Your task to perform on an android device: manage bookmarks in the chrome app Image 0: 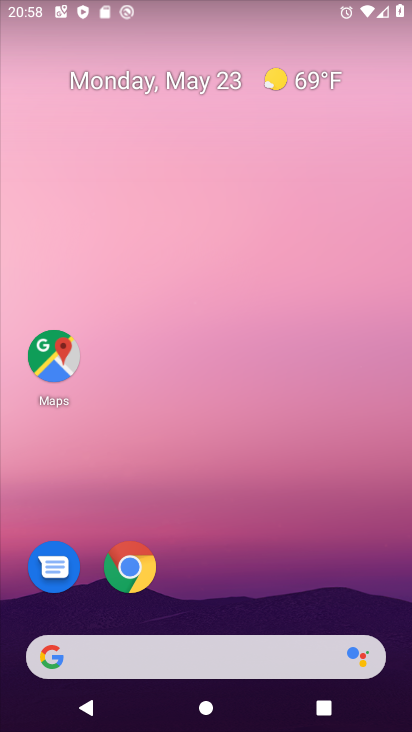
Step 0: drag from (235, 589) to (275, 27)
Your task to perform on an android device: manage bookmarks in the chrome app Image 1: 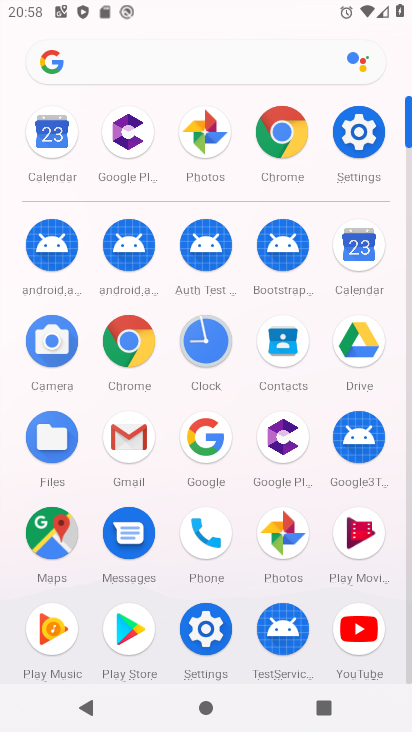
Step 1: click (133, 356)
Your task to perform on an android device: manage bookmarks in the chrome app Image 2: 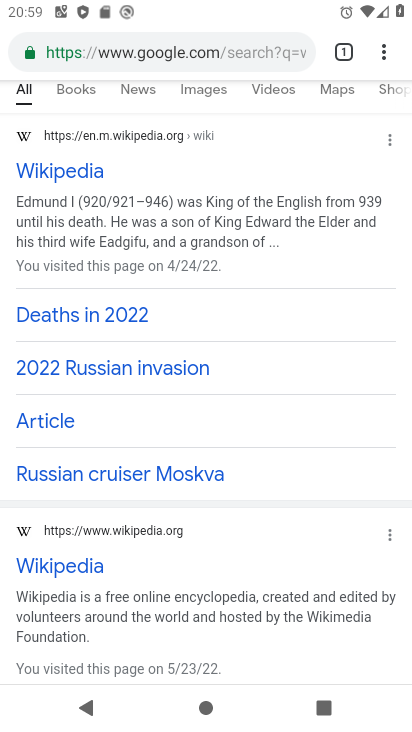
Step 2: click (384, 48)
Your task to perform on an android device: manage bookmarks in the chrome app Image 3: 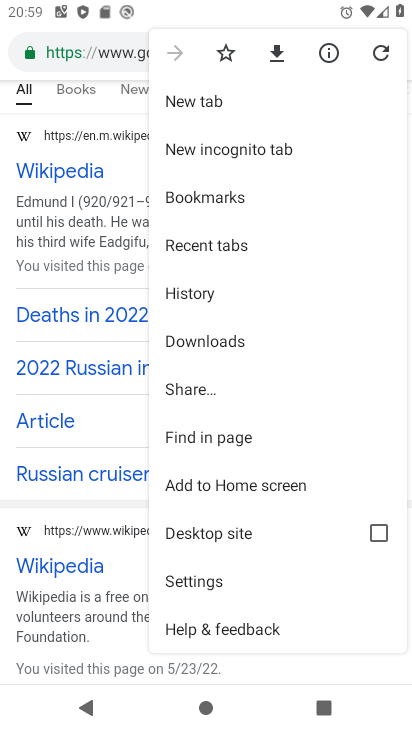
Step 3: click (238, 203)
Your task to perform on an android device: manage bookmarks in the chrome app Image 4: 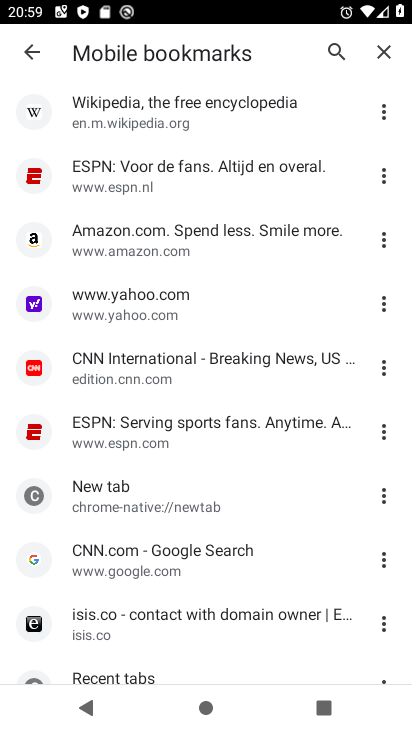
Step 4: click (384, 108)
Your task to perform on an android device: manage bookmarks in the chrome app Image 5: 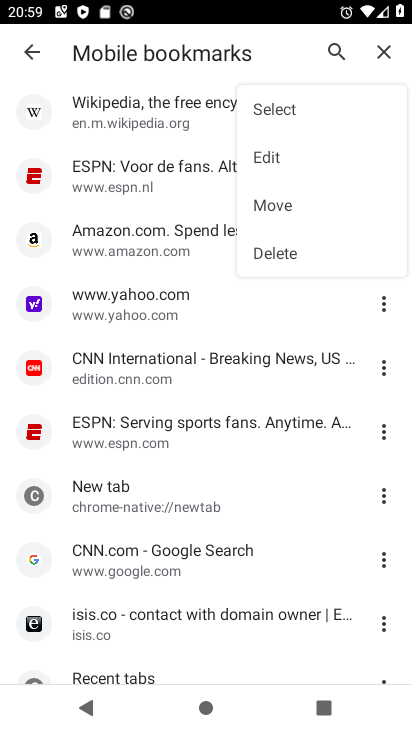
Step 5: click (280, 110)
Your task to perform on an android device: manage bookmarks in the chrome app Image 6: 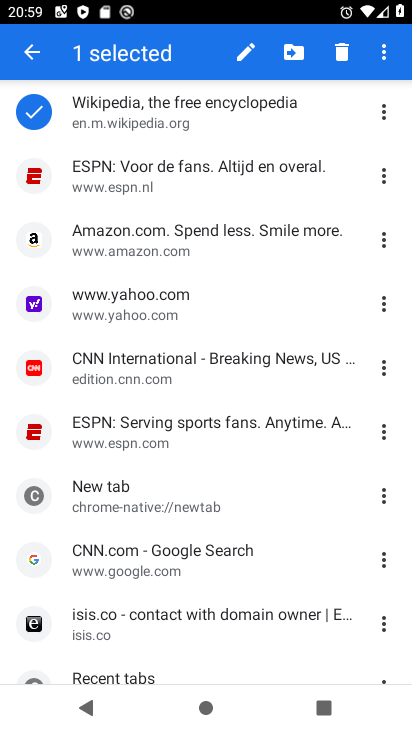
Step 6: click (165, 181)
Your task to perform on an android device: manage bookmarks in the chrome app Image 7: 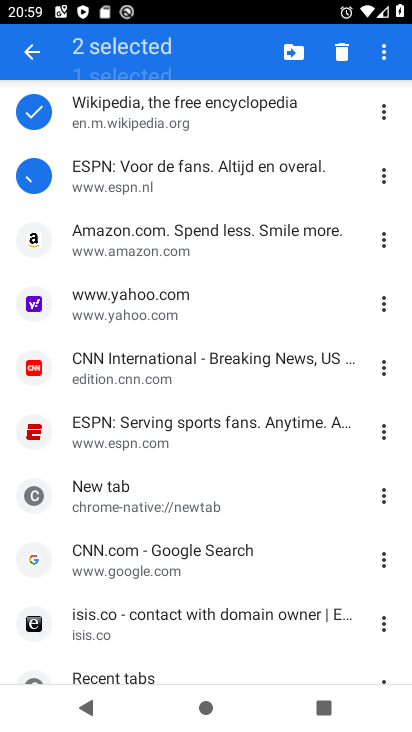
Step 7: click (146, 262)
Your task to perform on an android device: manage bookmarks in the chrome app Image 8: 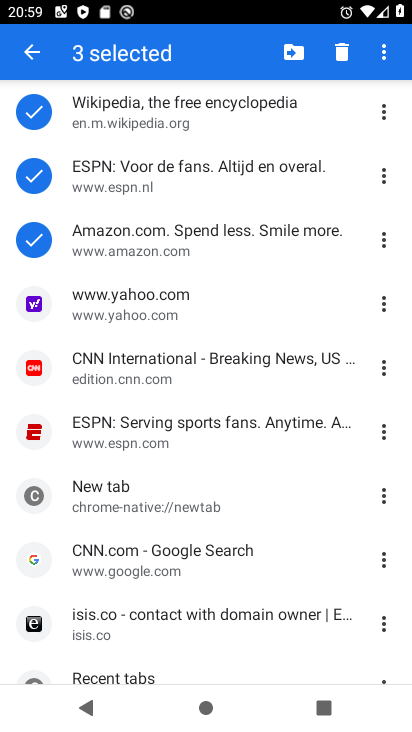
Step 8: click (148, 302)
Your task to perform on an android device: manage bookmarks in the chrome app Image 9: 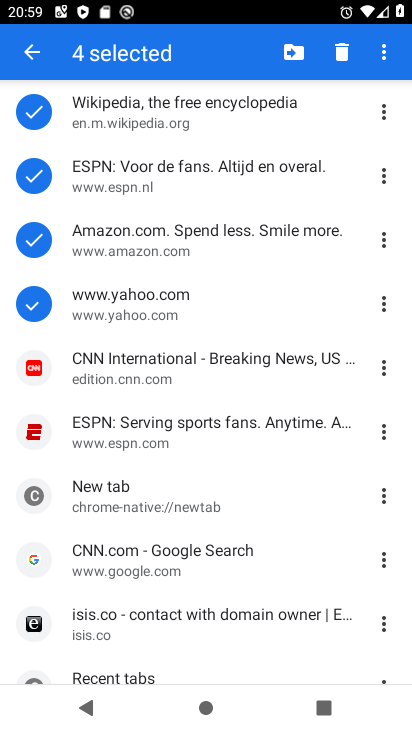
Step 9: click (147, 367)
Your task to perform on an android device: manage bookmarks in the chrome app Image 10: 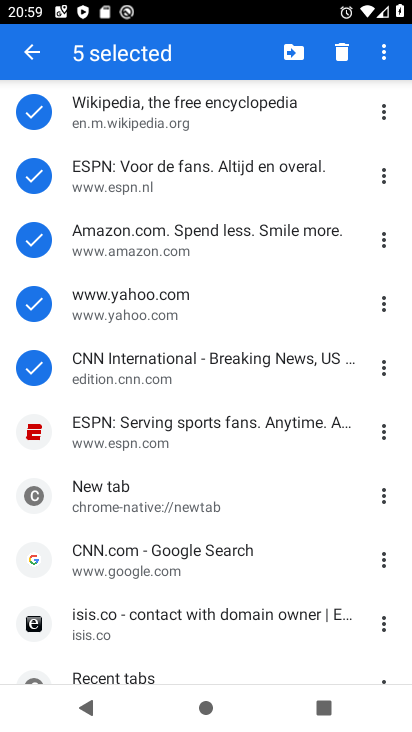
Step 10: click (144, 436)
Your task to perform on an android device: manage bookmarks in the chrome app Image 11: 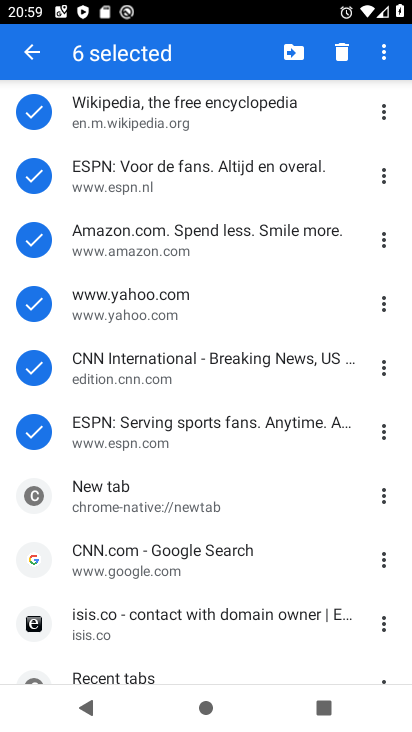
Step 11: click (142, 508)
Your task to perform on an android device: manage bookmarks in the chrome app Image 12: 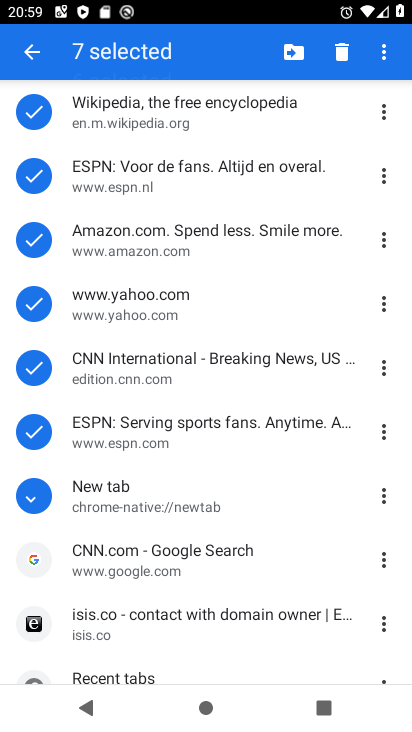
Step 12: click (151, 588)
Your task to perform on an android device: manage bookmarks in the chrome app Image 13: 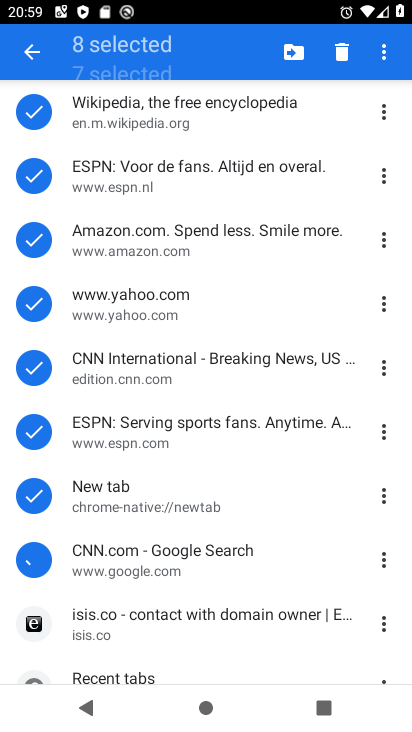
Step 13: click (157, 633)
Your task to perform on an android device: manage bookmarks in the chrome app Image 14: 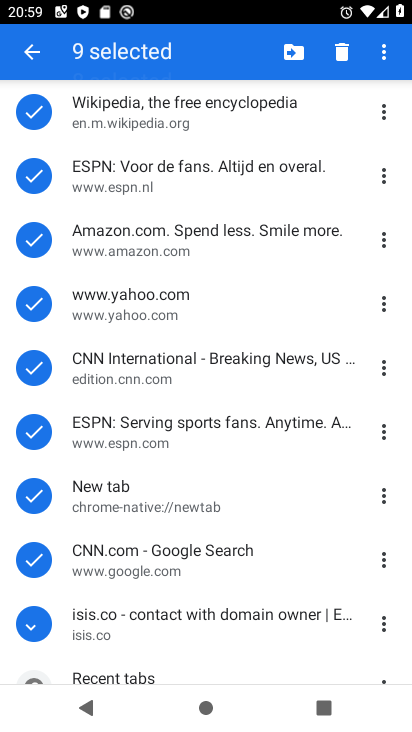
Step 14: drag from (155, 632) to (235, 155)
Your task to perform on an android device: manage bookmarks in the chrome app Image 15: 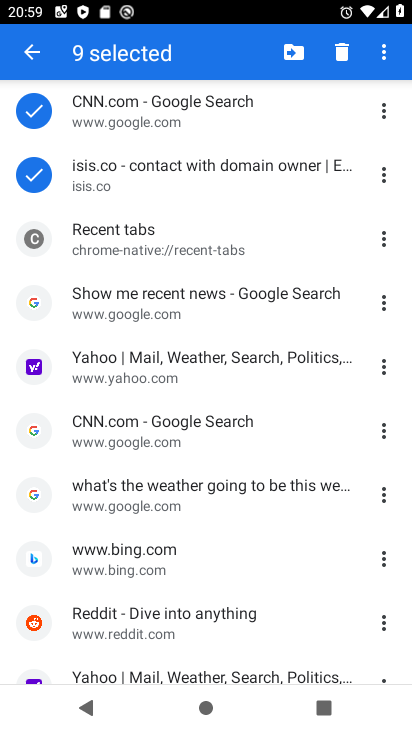
Step 15: click (151, 243)
Your task to perform on an android device: manage bookmarks in the chrome app Image 16: 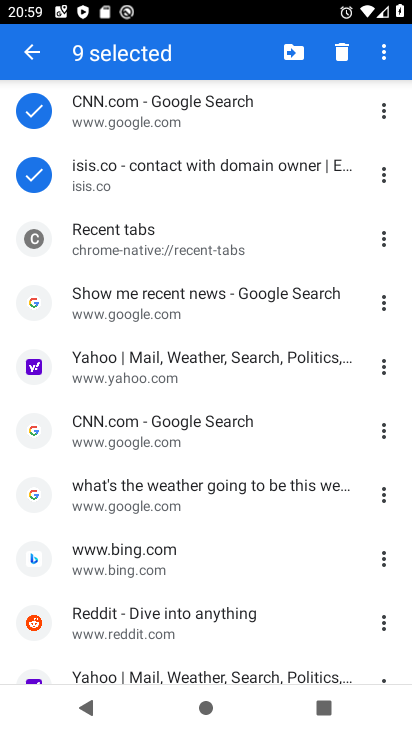
Step 16: click (145, 313)
Your task to perform on an android device: manage bookmarks in the chrome app Image 17: 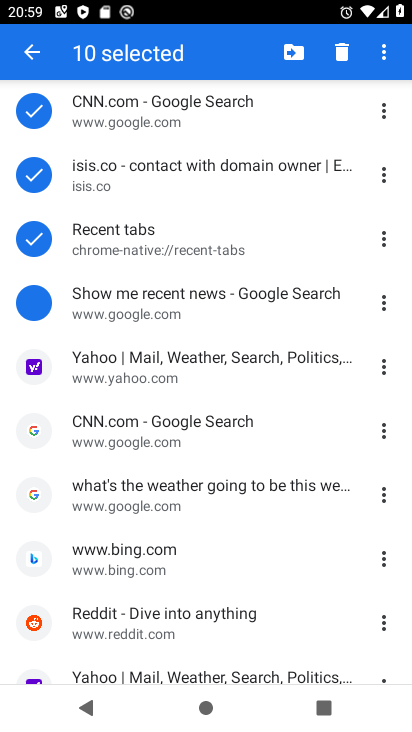
Step 17: click (134, 373)
Your task to perform on an android device: manage bookmarks in the chrome app Image 18: 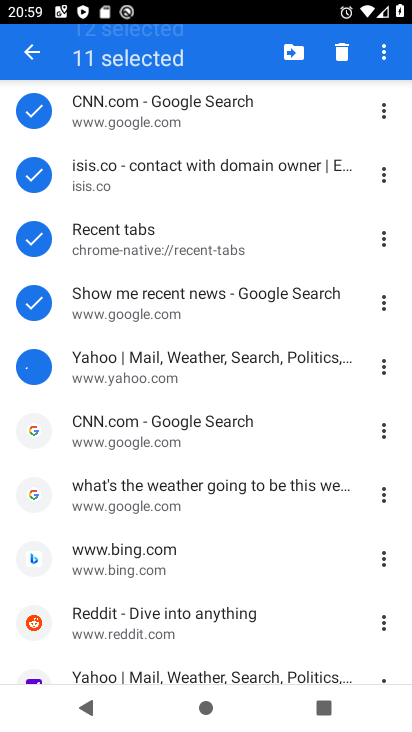
Step 18: click (131, 411)
Your task to perform on an android device: manage bookmarks in the chrome app Image 19: 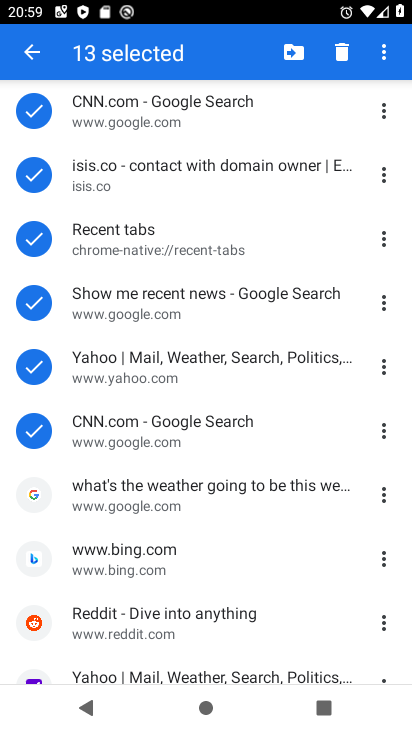
Step 19: click (132, 495)
Your task to perform on an android device: manage bookmarks in the chrome app Image 20: 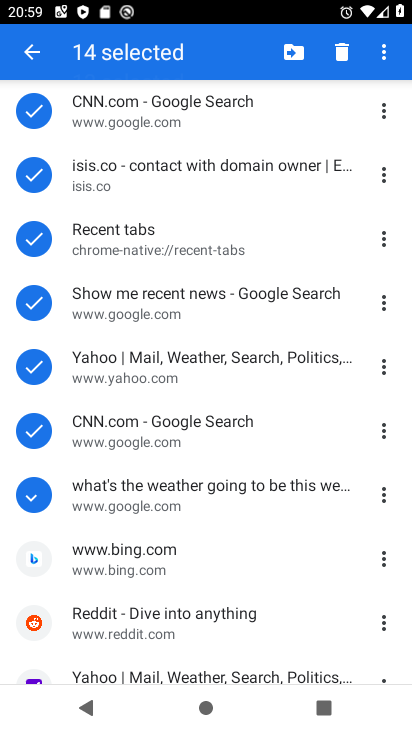
Step 20: click (132, 576)
Your task to perform on an android device: manage bookmarks in the chrome app Image 21: 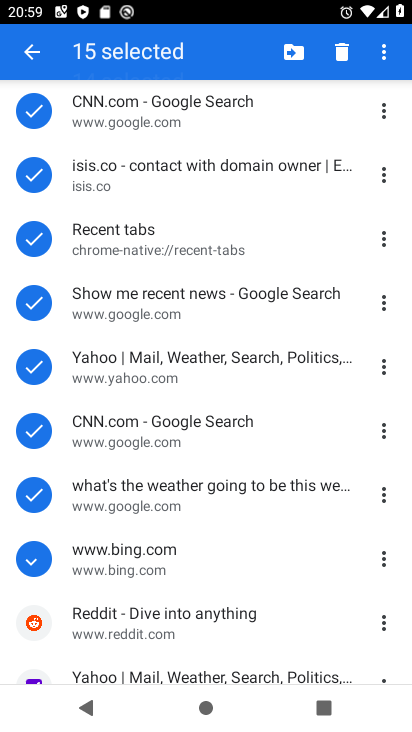
Step 21: click (137, 631)
Your task to perform on an android device: manage bookmarks in the chrome app Image 22: 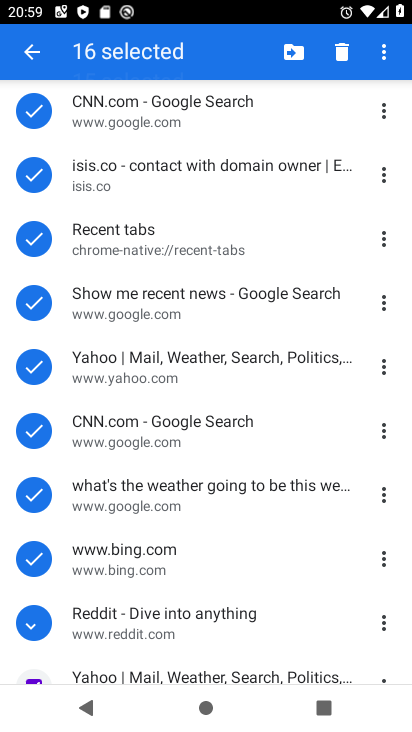
Step 22: drag from (138, 628) to (231, 189)
Your task to perform on an android device: manage bookmarks in the chrome app Image 23: 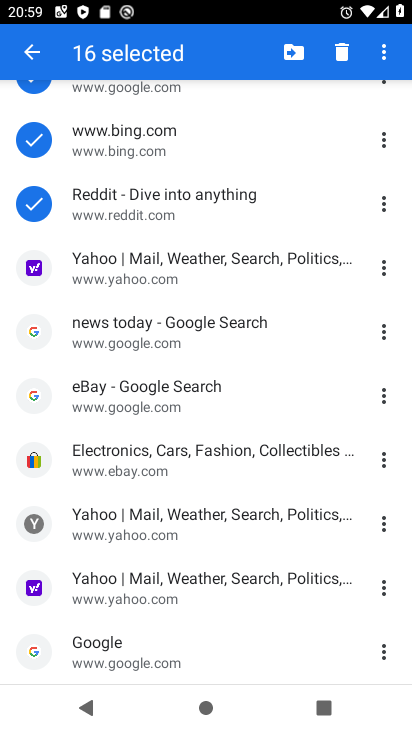
Step 23: click (143, 544)
Your task to perform on an android device: manage bookmarks in the chrome app Image 24: 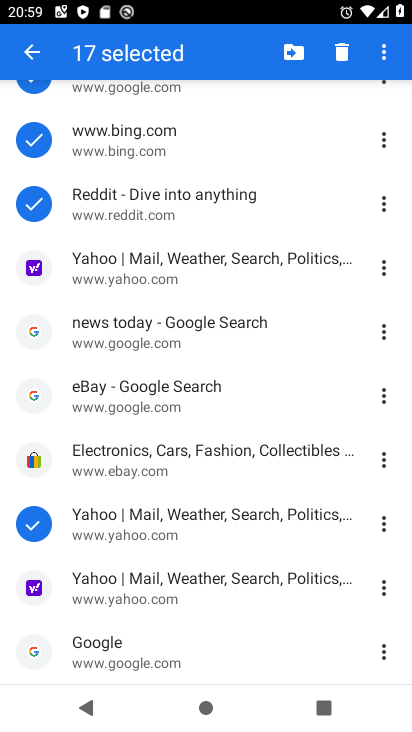
Step 24: click (132, 473)
Your task to perform on an android device: manage bookmarks in the chrome app Image 25: 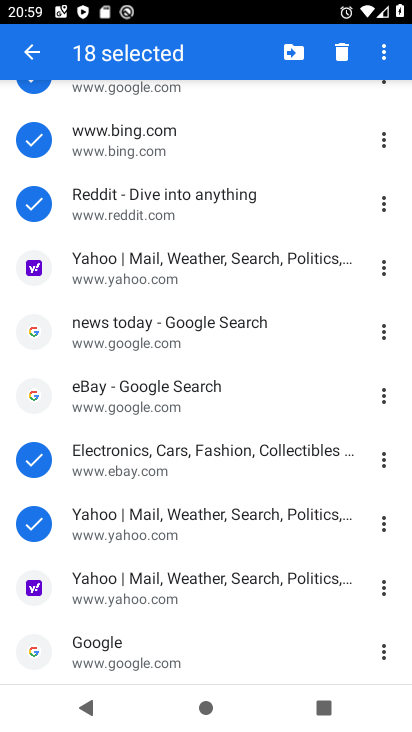
Step 25: click (156, 261)
Your task to perform on an android device: manage bookmarks in the chrome app Image 26: 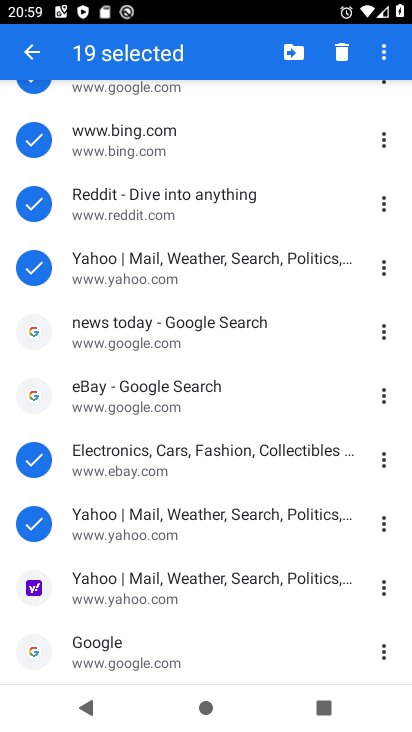
Step 26: drag from (168, 530) to (185, 229)
Your task to perform on an android device: manage bookmarks in the chrome app Image 27: 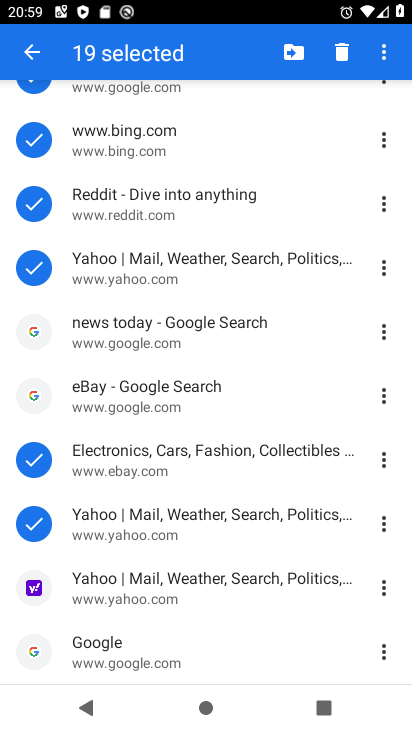
Step 27: click (297, 62)
Your task to perform on an android device: manage bookmarks in the chrome app Image 28: 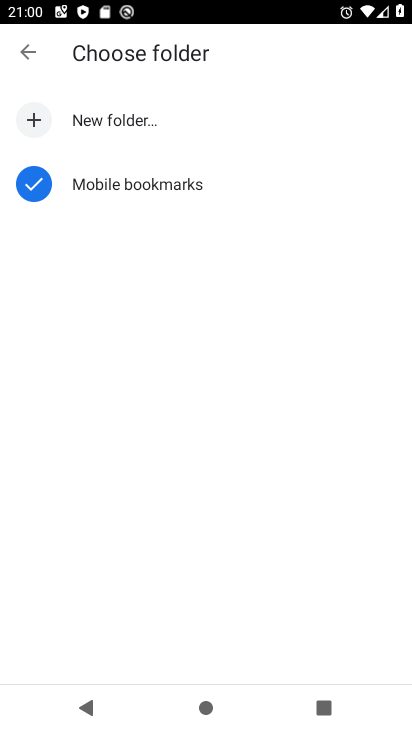
Step 28: click (116, 121)
Your task to perform on an android device: manage bookmarks in the chrome app Image 29: 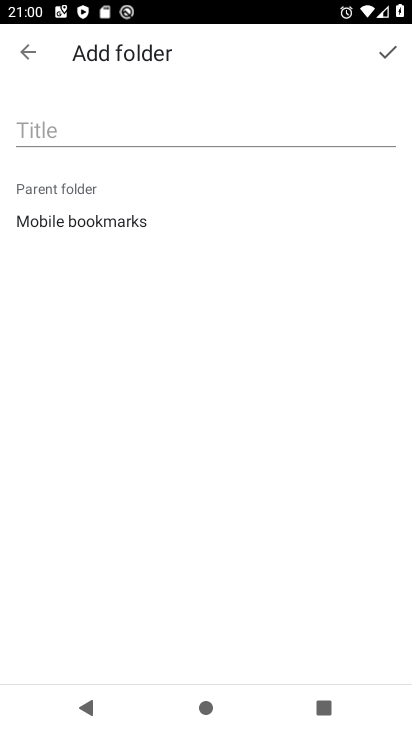
Step 29: click (139, 128)
Your task to perform on an android device: manage bookmarks in the chrome app Image 30: 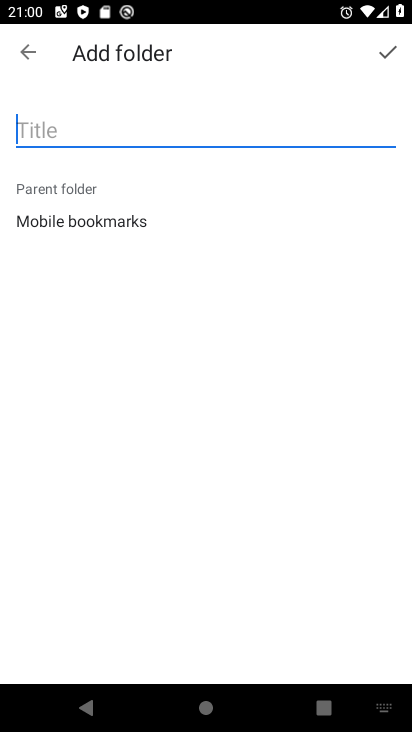
Step 30: type "bamboo"
Your task to perform on an android device: manage bookmarks in the chrome app Image 31: 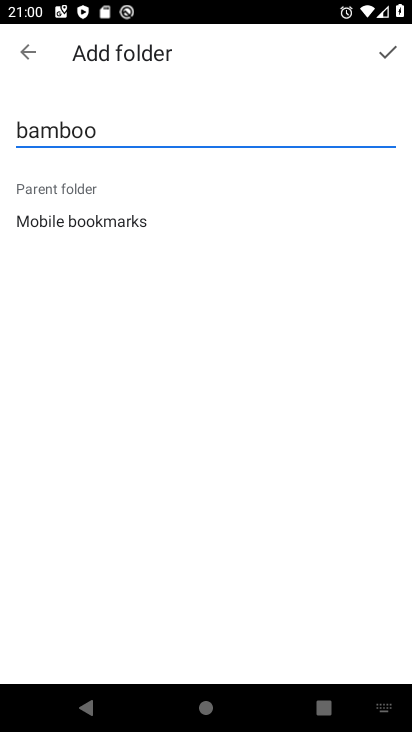
Step 31: click (384, 46)
Your task to perform on an android device: manage bookmarks in the chrome app Image 32: 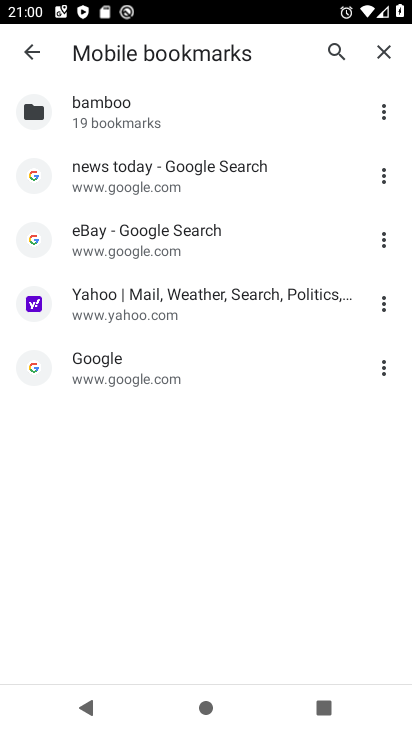
Step 32: task complete